Your task to perform on an android device: visit the assistant section in the google photos Image 0: 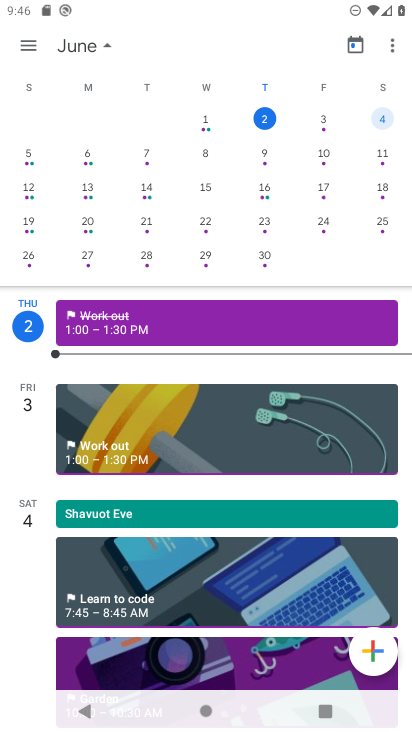
Step 0: press home button
Your task to perform on an android device: visit the assistant section in the google photos Image 1: 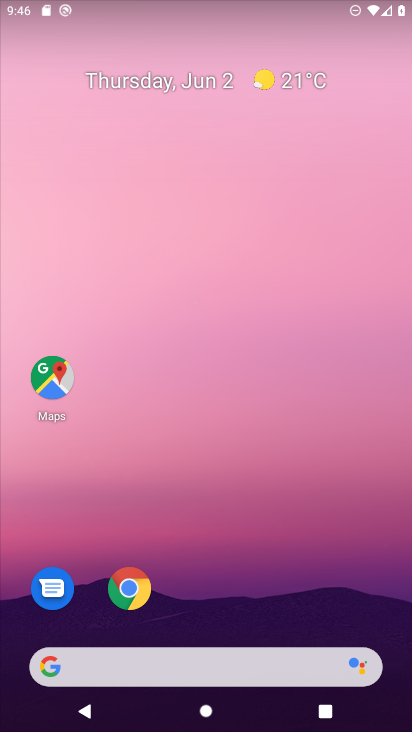
Step 1: drag from (233, 546) to (271, 301)
Your task to perform on an android device: visit the assistant section in the google photos Image 2: 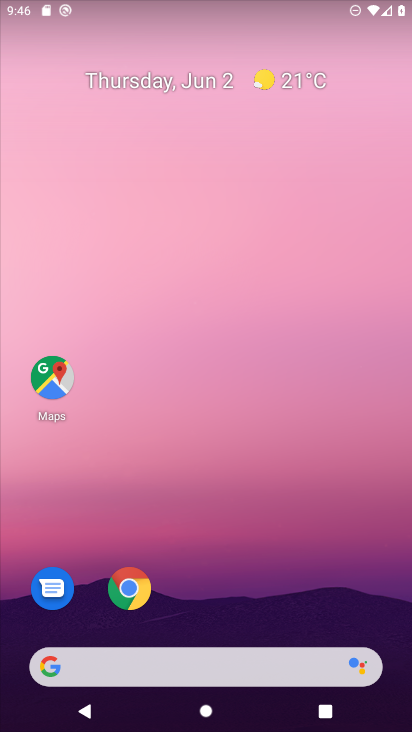
Step 2: drag from (228, 631) to (236, 167)
Your task to perform on an android device: visit the assistant section in the google photos Image 3: 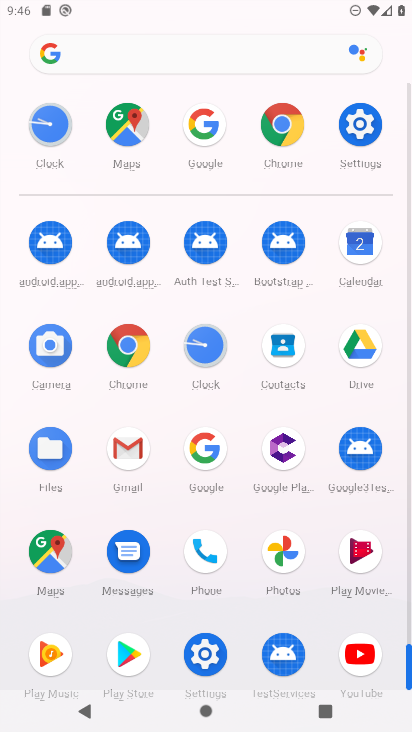
Step 3: click (274, 566)
Your task to perform on an android device: visit the assistant section in the google photos Image 4: 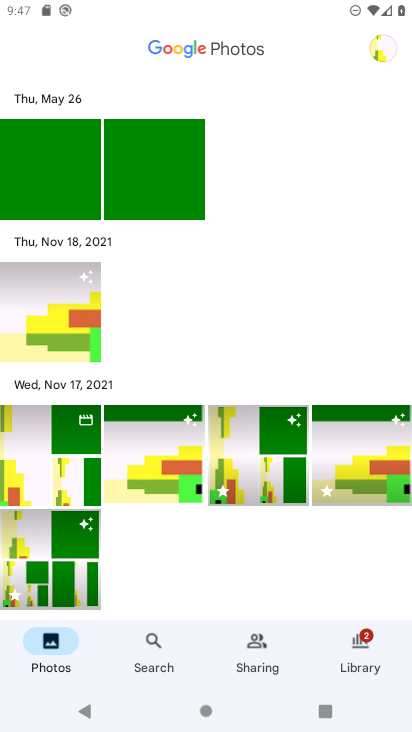
Step 4: task complete